Your task to perform on an android device: toggle javascript in the chrome app Image 0: 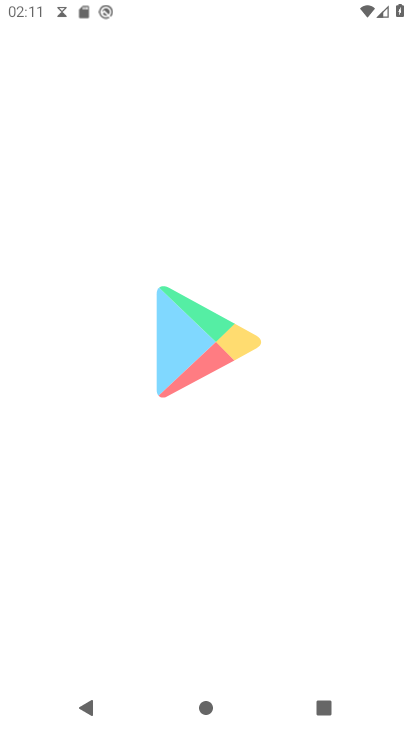
Step 0: drag from (159, 644) to (314, 116)
Your task to perform on an android device: toggle javascript in the chrome app Image 1: 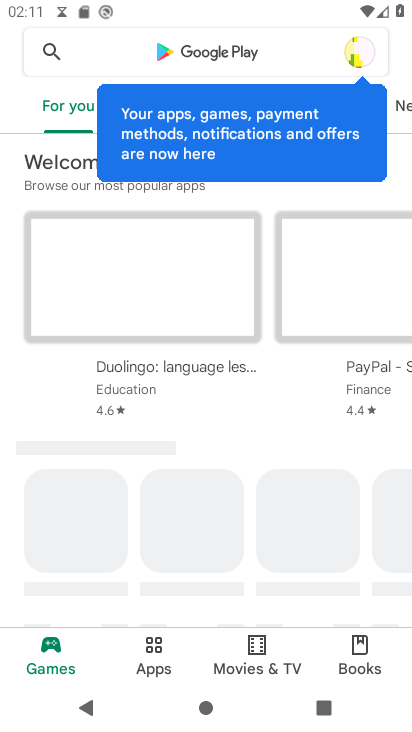
Step 1: press home button
Your task to perform on an android device: toggle javascript in the chrome app Image 2: 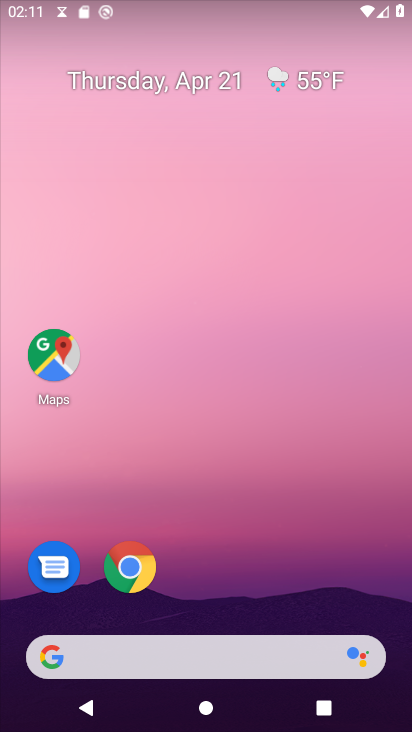
Step 2: drag from (167, 657) to (315, 123)
Your task to perform on an android device: toggle javascript in the chrome app Image 3: 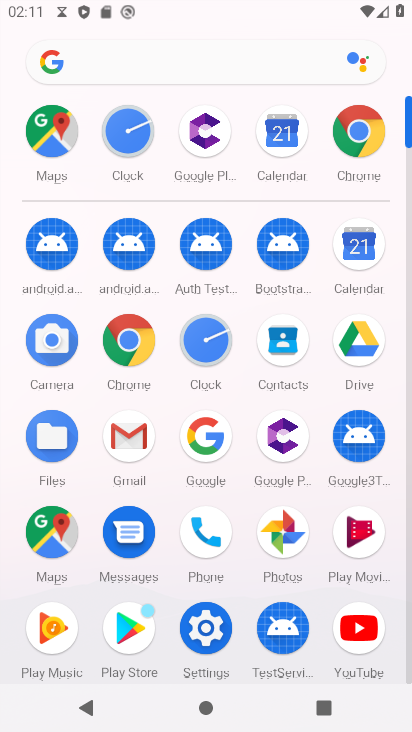
Step 3: click (364, 133)
Your task to perform on an android device: toggle javascript in the chrome app Image 4: 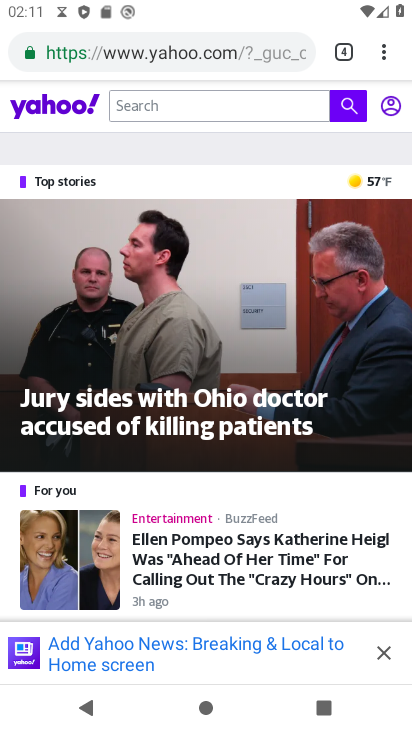
Step 4: click (378, 56)
Your task to perform on an android device: toggle javascript in the chrome app Image 5: 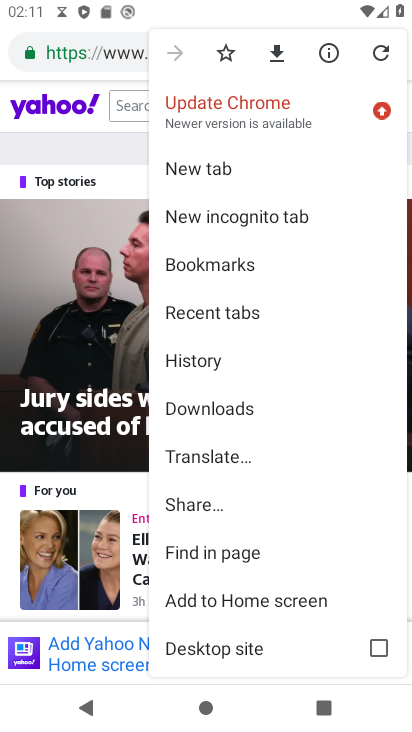
Step 5: drag from (225, 571) to (403, 63)
Your task to perform on an android device: toggle javascript in the chrome app Image 6: 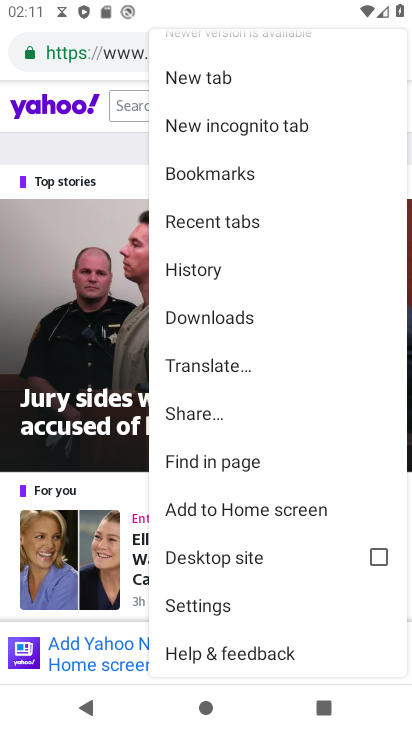
Step 6: click (213, 607)
Your task to perform on an android device: toggle javascript in the chrome app Image 7: 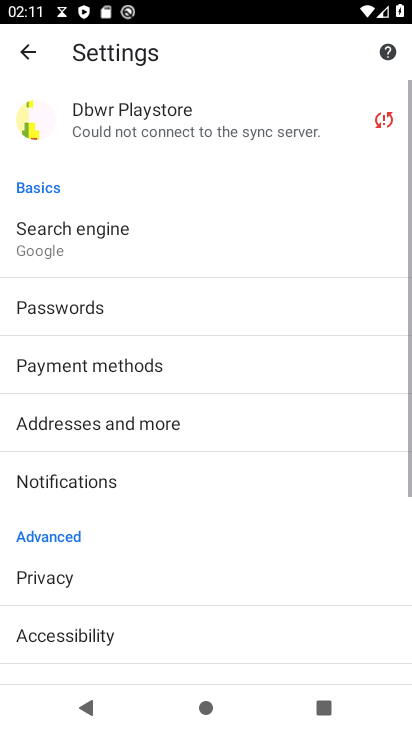
Step 7: drag from (78, 610) to (258, 133)
Your task to perform on an android device: toggle javascript in the chrome app Image 8: 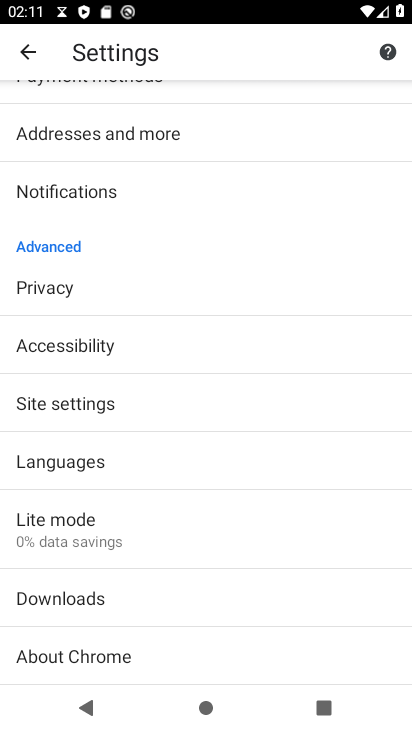
Step 8: click (101, 400)
Your task to perform on an android device: toggle javascript in the chrome app Image 9: 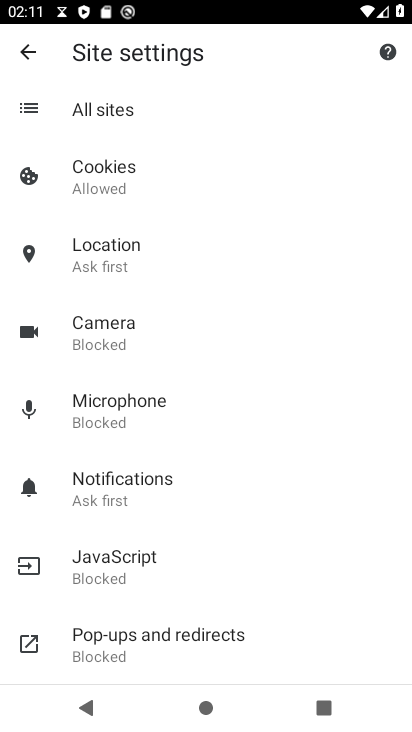
Step 9: click (123, 563)
Your task to perform on an android device: toggle javascript in the chrome app Image 10: 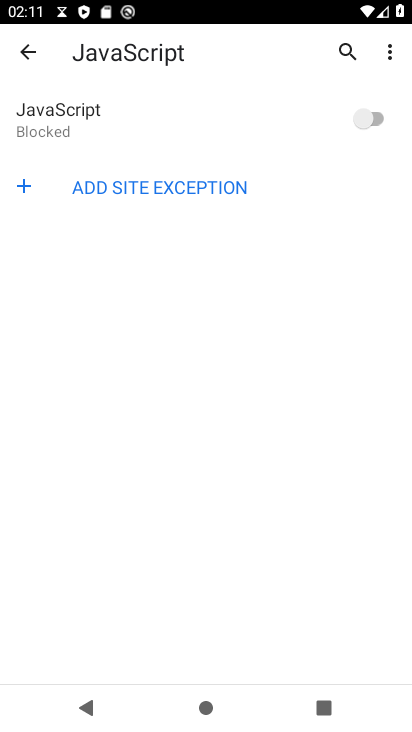
Step 10: click (378, 118)
Your task to perform on an android device: toggle javascript in the chrome app Image 11: 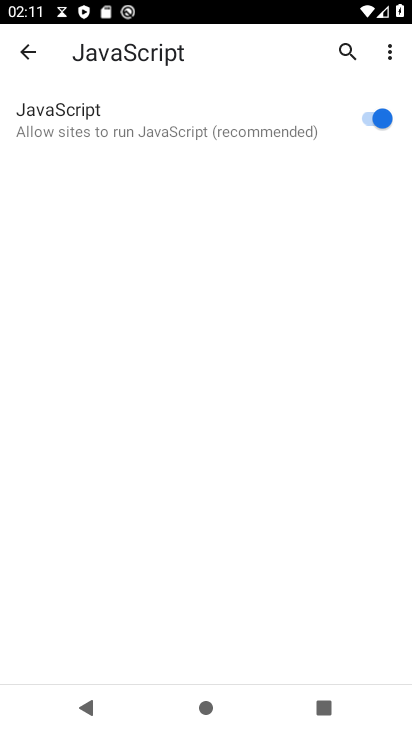
Step 11: task complete